Your task to perform on an android device: open app "LinkedIn" Image 0: 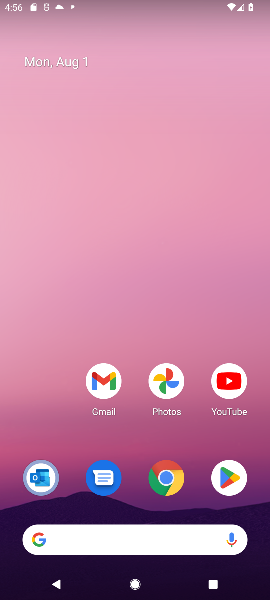
Step 0: press home button
Your task to perform on an android device: open app "LinkedIn" Image 1: 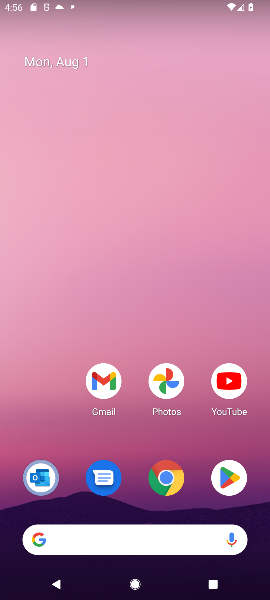
Step 1: click (233, 460)
Your task to perform on an android device: open app "LinkedIn" Image 2: 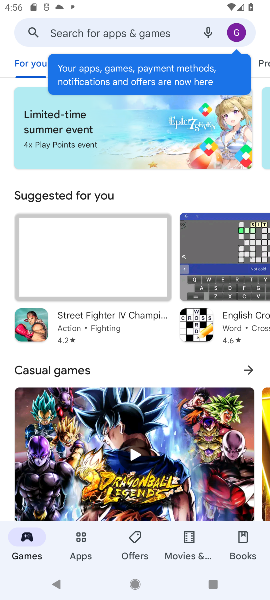
Step 2: click (167, 36)
Your task to perform on an android device: open app "LinkedIn" Image 3: 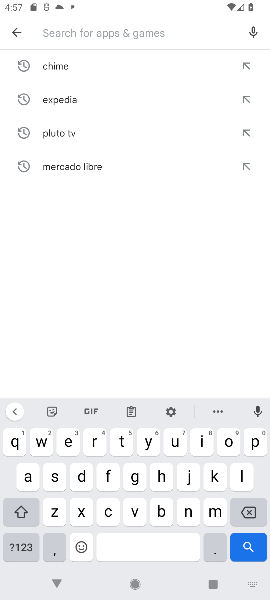
Step 3: click (242, 473)
Your task to perform on an android device: open app "LinkedIn" Image 4: 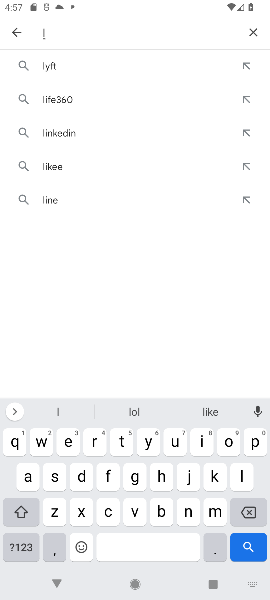
Step 4: click (203, 439)
Your task to perform on an android device: open app "LinkedIn" Image 5: 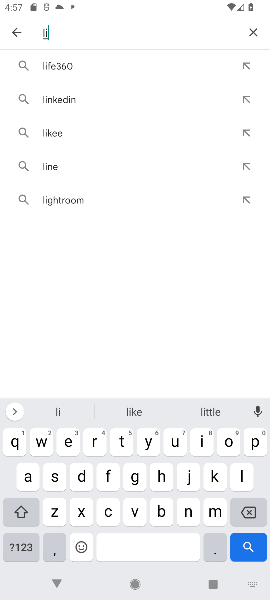
Step 5: click (188, 513)
Your task to perform on an android device: open app "LinkedIn" Image 6: 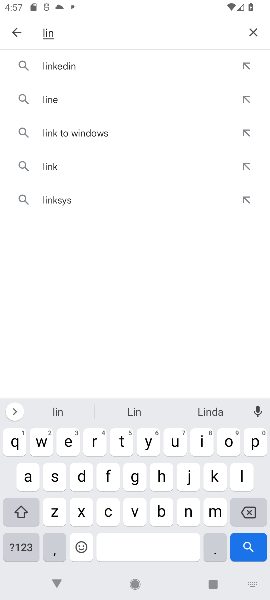
Step 6: click (78, 70)
Your task to perform on an android device: open app "LinkedIn" Image 7: 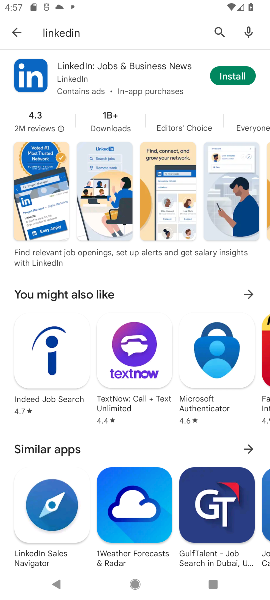
Step 7: click (240, 76)
Your task to perform on an android device: open app "LinkedIn" Image 8: 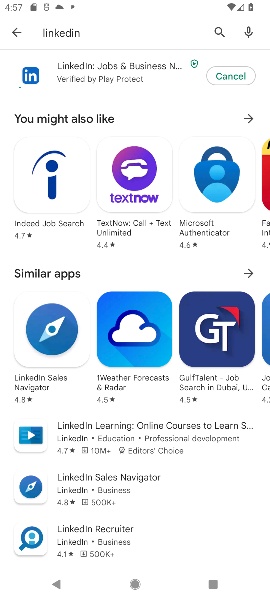
Step 8: click (227, 79)
Your task to perform on an android device: open app "LinkedIn" Image 9: 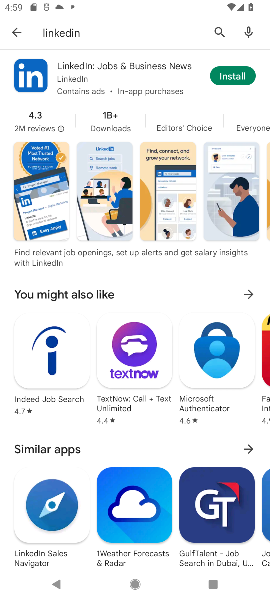
Step 9: task complete